Your task to perform on an android device: Search for seafood restaurants on Google Maps Image 0: 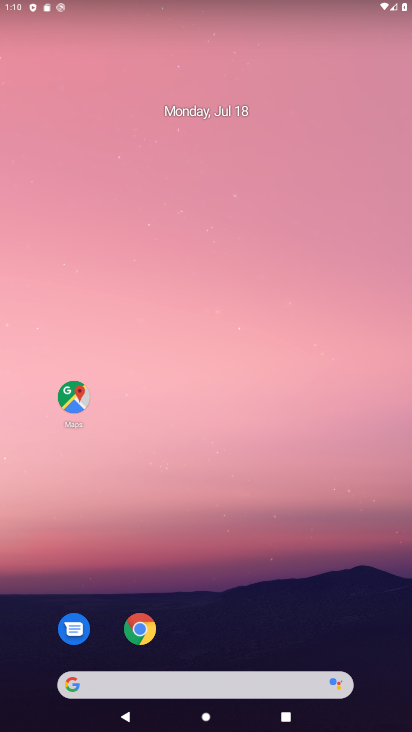
Step 0: click (60, 397)
Your task to perform on an android device: Search for seafood restaurants on Google Maps Image 1: 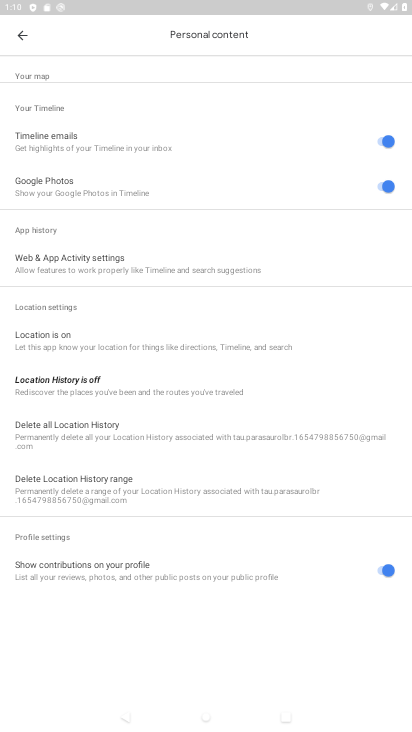
Step 1: click (28, 38)
Your task to perform on an android device: Search for seafood restaurants on Google Maps Image 2: 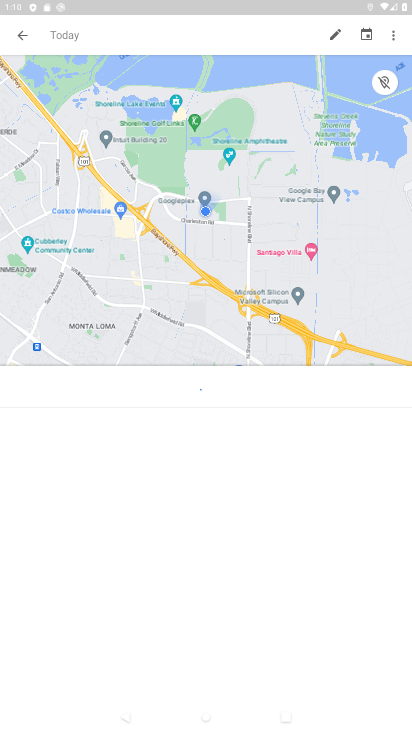
Step 2: click (26, 42)
Your task to perform on an android device: Search for seafood restaurants on Google Maps Image 3: 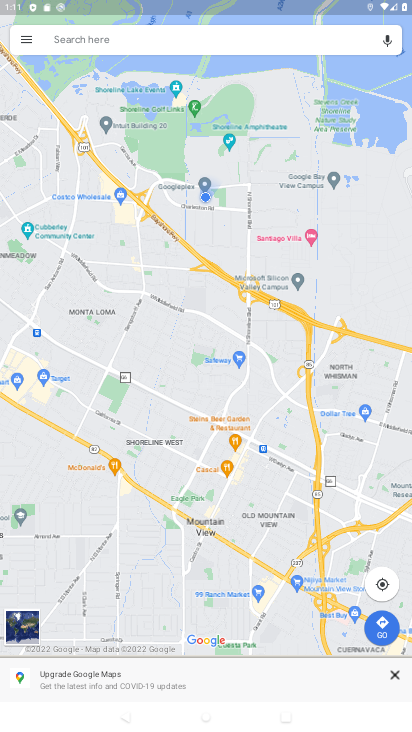
Step 3: click (140, 44)
Your task to perform on an android device: Search for seafood restaurants on Google Maps Image 4: 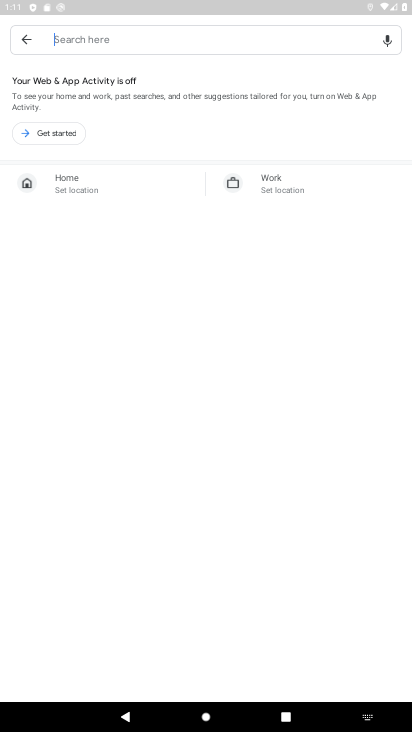
Step 4: type "seafood restaurant"
Your task to perform on an android device: Search for seafood restaurants on Google Maps Image 5: 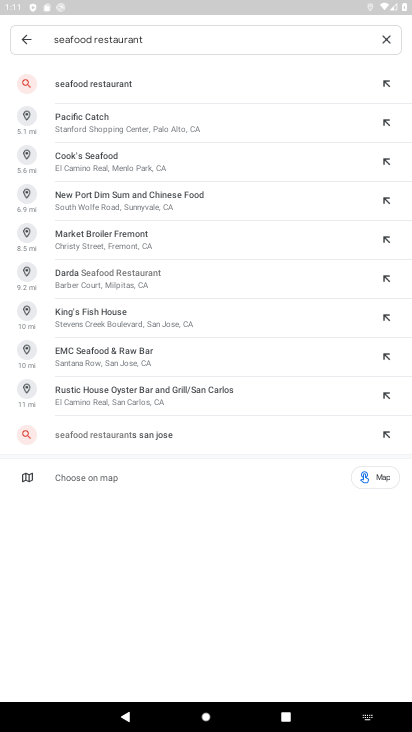
Step 5: click (151, 84)
Your task to perform on an android device: Search for seafood restaurants on Google Maps Image 6: 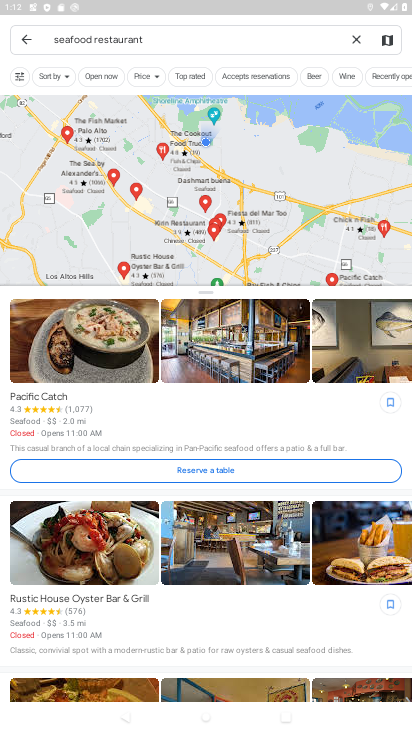
Step 6: task complete